Your task to perform on an android device: check google app version Image 0: 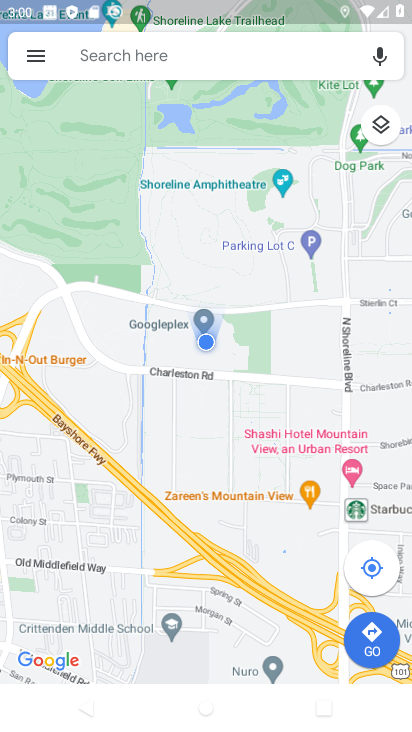
Step 0: press back button
Your task to perform on an android device: check google app version Image 1: 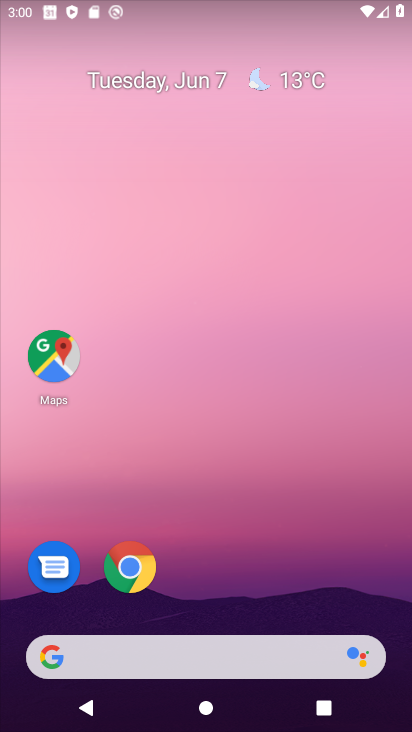
Step 1: drag from (205, 522) to (246, 22)
Your task to perform on an android device: check google app version Image 2: 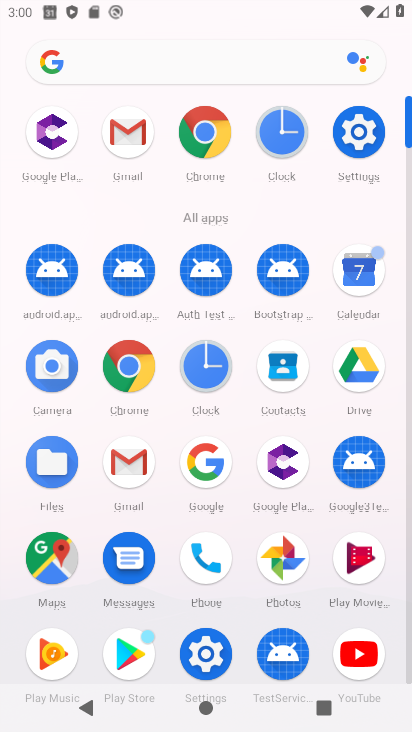
Step 2: click (205, 468)
Your task to perform on an android device: check google app version Image 3: 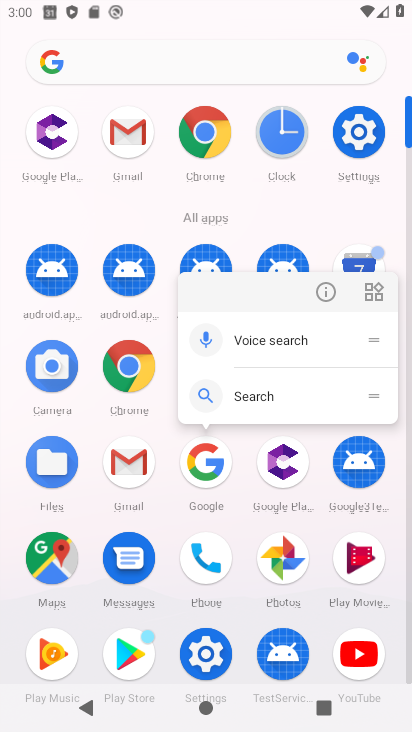
Step 3: click (328, 289)
Your task to perform on an android device: check google app version Image 4: 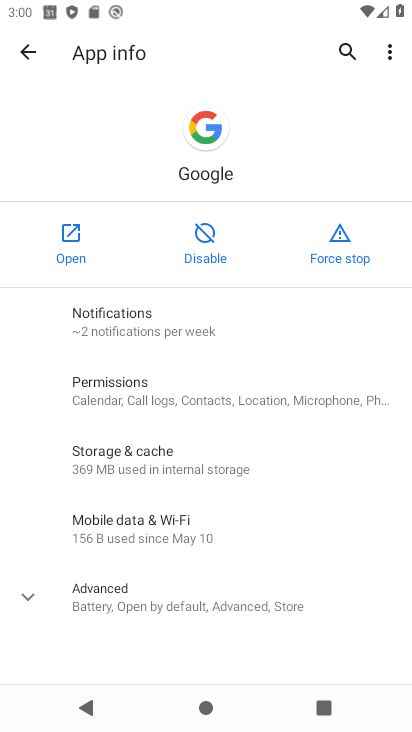
Step 4: drag from (155, 578) to (238, 75)
Your task to perform on an android device: check google app version Image 5: 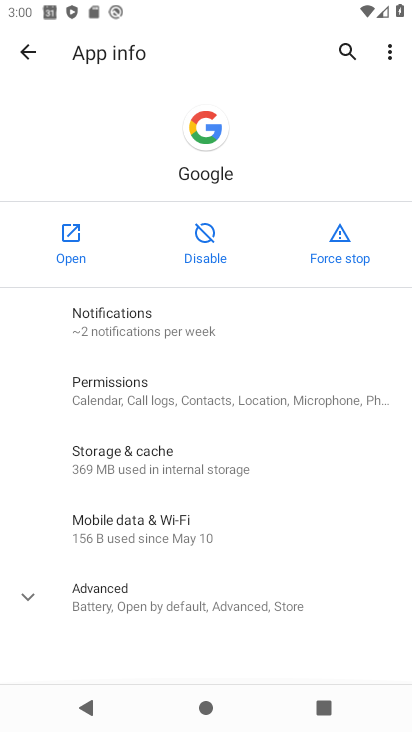
Step 5: click (155, 607)
Your task to perform on an android device: check google app version Image 6: 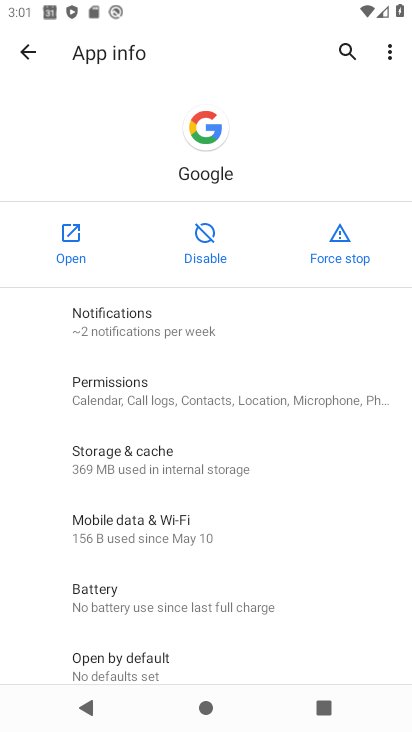
Step 6: task complete